Your task to perform on an android device: Open display settings Image 0: 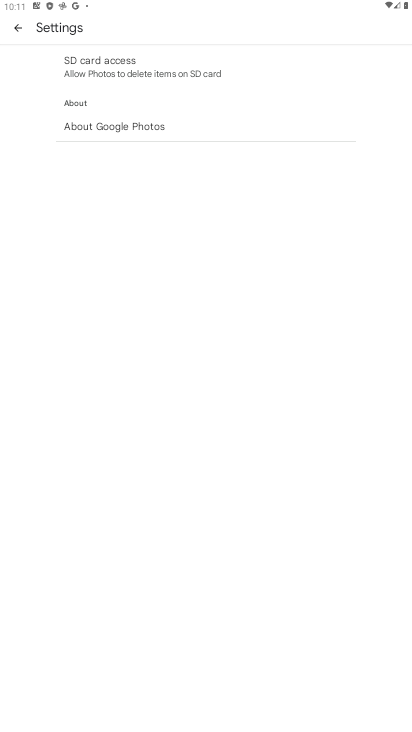
Step 0: press home button
Your task to perform on an android device: Open display settings Image 1: 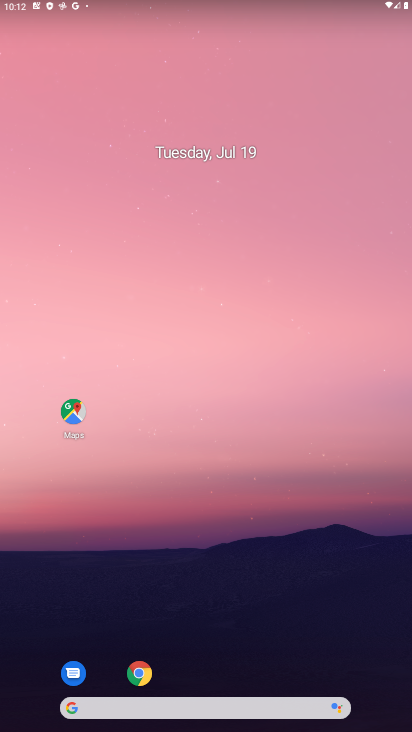
Step 1: drag from (254, 652) to (207, 171)
Your task to perform on an android device: Open display settings Image 2: 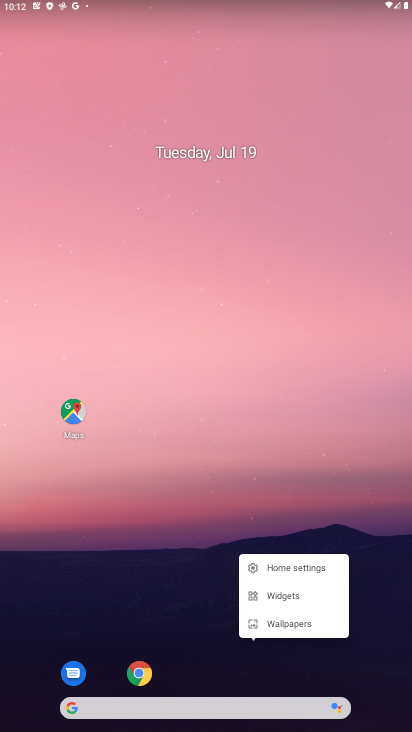
Step 2: click (296, 236)
Your task to perform on an android device: Open display settings Image 3: 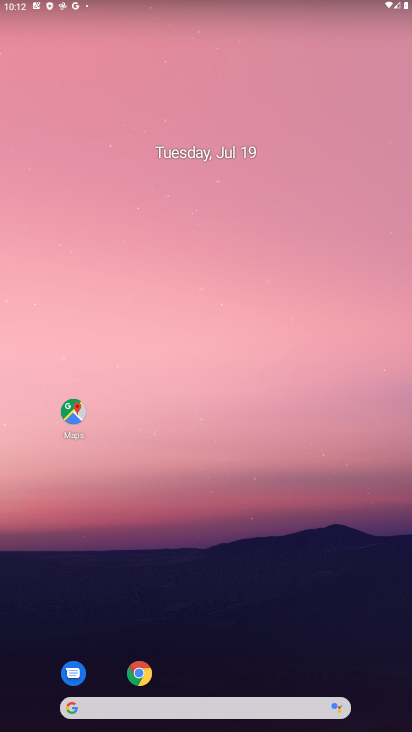
Step 3: drag from (277, 666) to (276, 220)
Your task to perform on an android device: Open display settings Image 4: 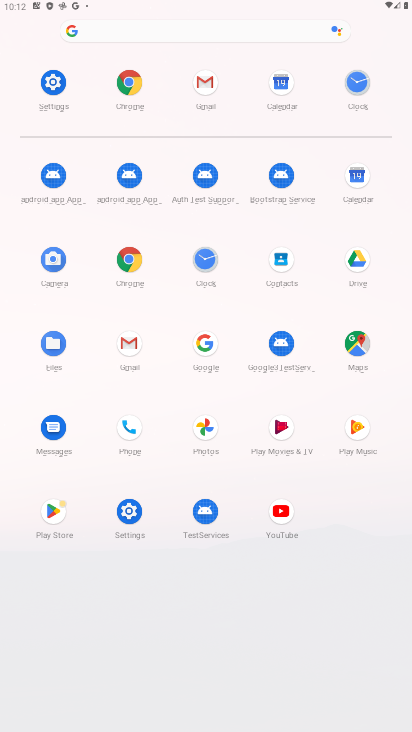
Step 4: click (57, 94)
Your task to perform on an android device: Open display settings Image 5: 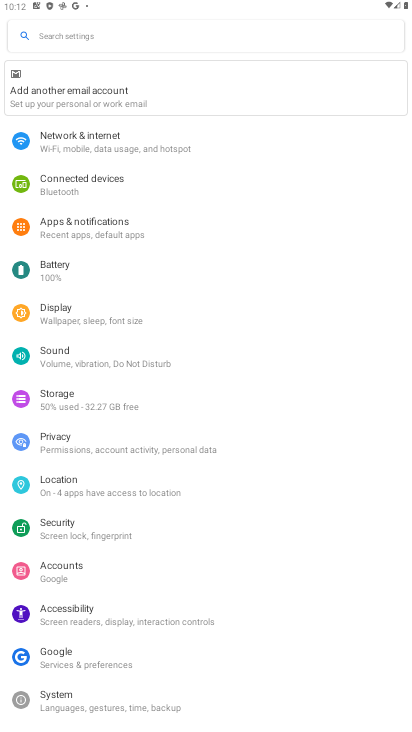
Step 5: click (134, 329)
Your task to perform on an android device: Open display settings Image 6: 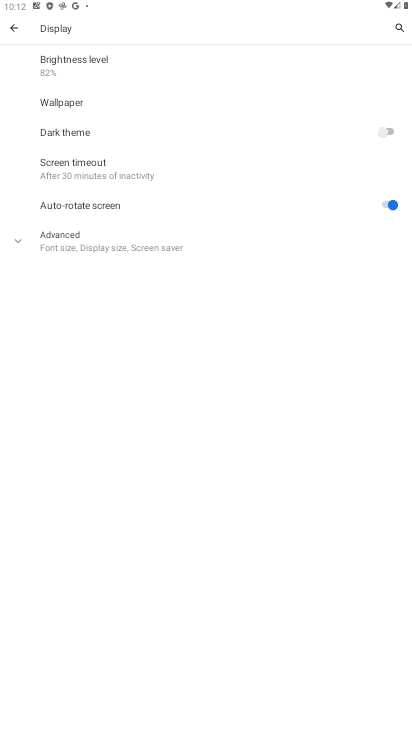
Step 6: task complete